Your task to perform on an android device: What's the weather going to be tomorrow? Image 0: 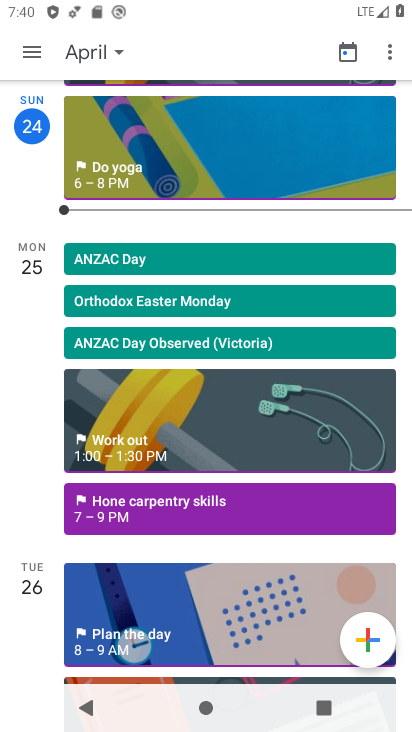
Step 0: press home button
Your task to perform on an android device: What's the weather going to be tomorrow? Image 1: 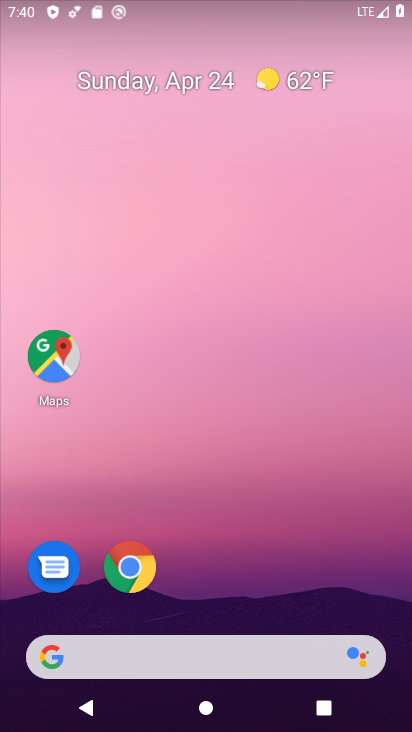
Step 1: drag from (225, 565) to (220, 71)
Your task to perform on an android device: What's the weather going to be tomorrow? Image 2: 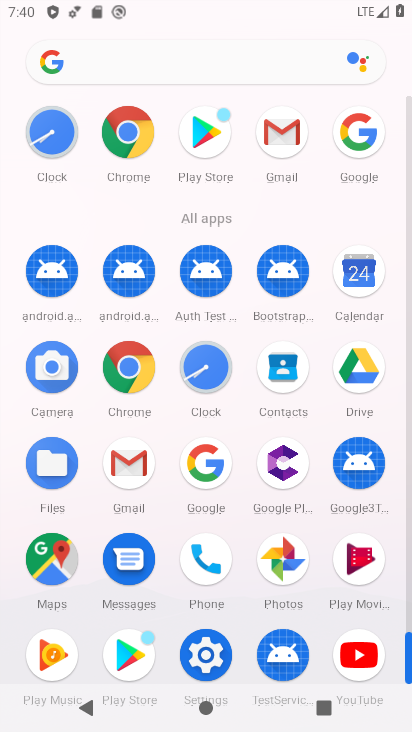
Step 2: click (359, 134)
Your task to perform on an android device: What's the weather going to be tomorrow? Image 3: 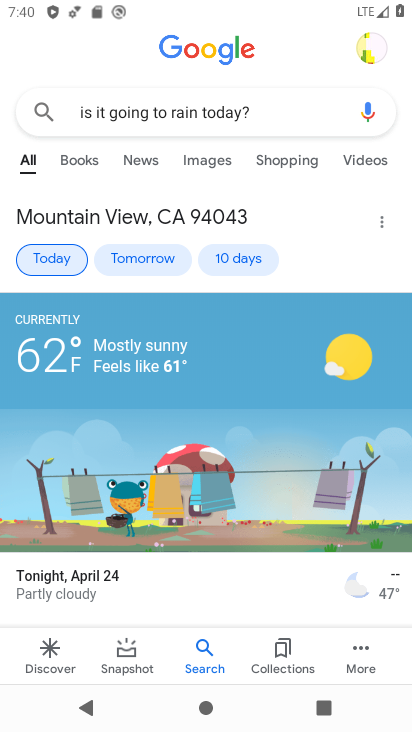
Step 3: click (155, 261)
Your task to perform on an android device: What's the weather going to be tomorrow? Image 4: 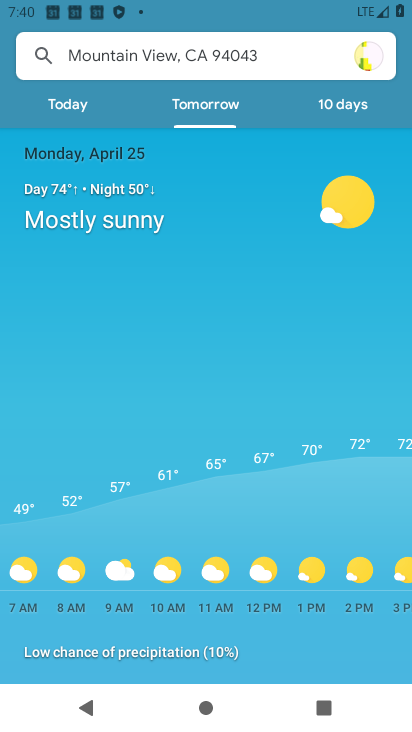
Step 4: task complete